Your task to perform on an android device: Search for apple airpods pro on ebay.com, select the first entry, add it to the cart, then select checkout. Image 0: 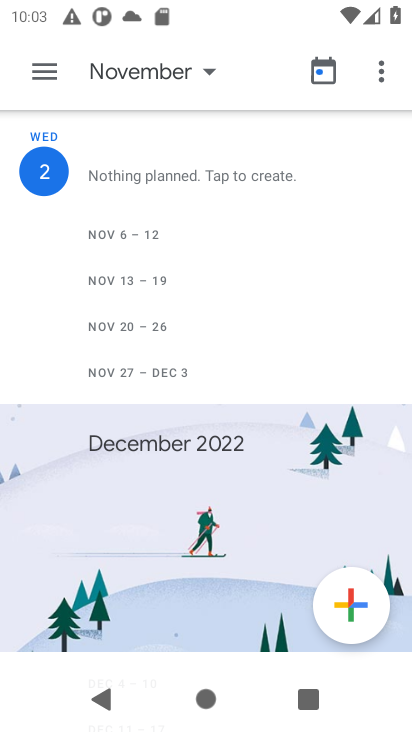
Step 0: press home button
Your task to perform on an android device: Search for apple airpods pro on ebay.com, select the first entry, add it to the cart, then select checkout. Image 1: 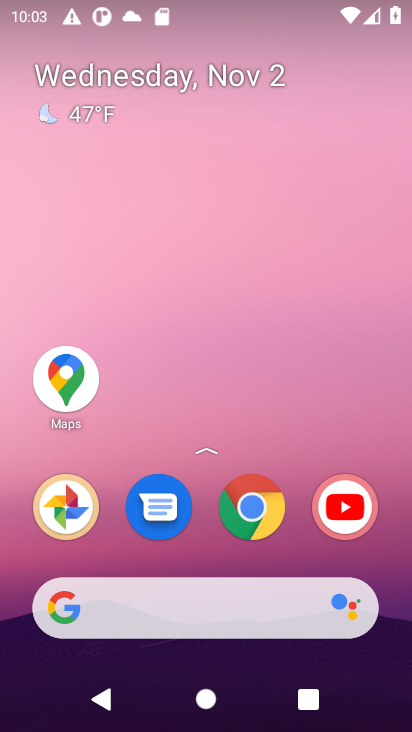
Step 1: click (143, 606)
Your task to perform on an android device: Search for apple airpods pro on ebay.com, select the first entry, add it to the cart, then select checkout. Image 2: 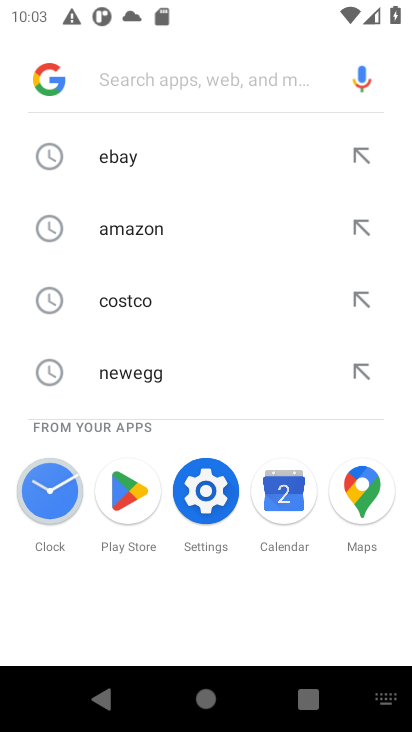
Step 2: click (246, 156)
Your task to perform on an android device: Search for apple airpods pro on ebay.com, select the first entry, add it to the cart, then select checkout. Image 3: 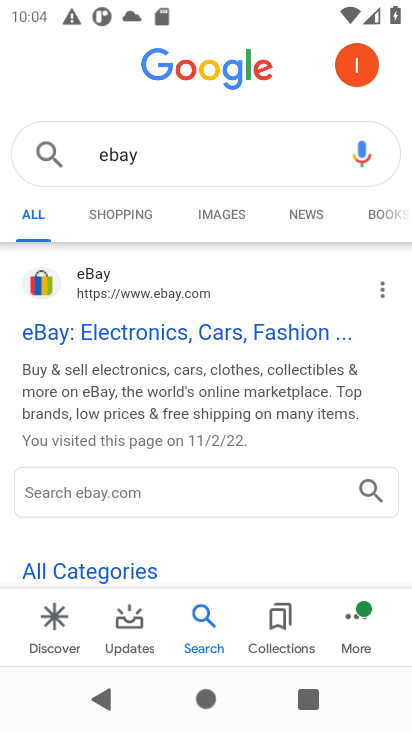
Step 3: click (114, 327)
Your task to perform on an android device: Search for apple airpods pro on ebay.com, select the first entry, add it to the cart, then select checkout. Image 4: 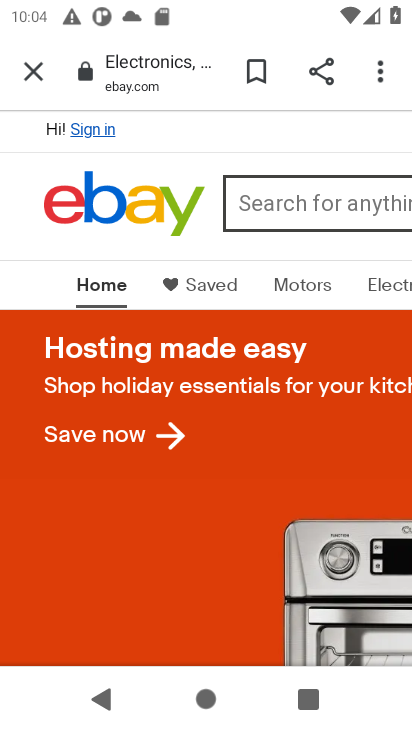
Step 4: click (314, 215)
Your task to perform on an android device: Search for apple airpods pro on ebay.com, select the first entry, add it to the cart, then select checkout. Image 5: 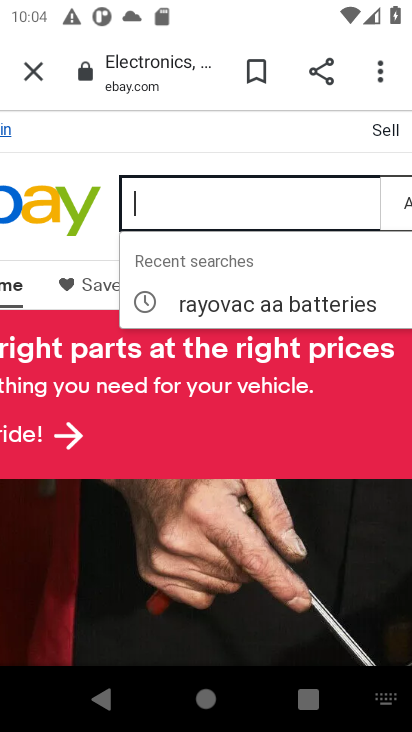
Step 5: type "apple "
Your task to perform on an android device: Search for apple airpods pro on ebay.com, select the first entry, add it to the cart, then select checkout. Image 6: 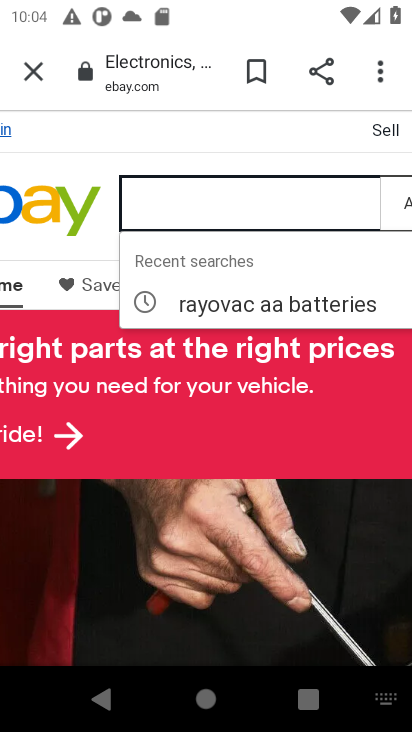
Step 6: click (270, 304)
Your task to perform on an android device: Search for apple airpods pro on ebay.com, select the first entry, add it to the cart, then select checkout. Image 7: 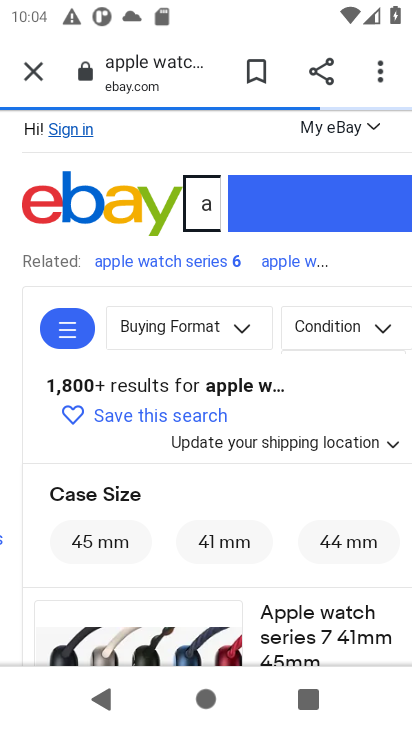
Step 7: drag from (237, 635) to (186, 290)
Your task to perform on an android device: Search for apple airpods pro on ebay.com, select the first entry, add it to the cart, then select checkout. Image 8: 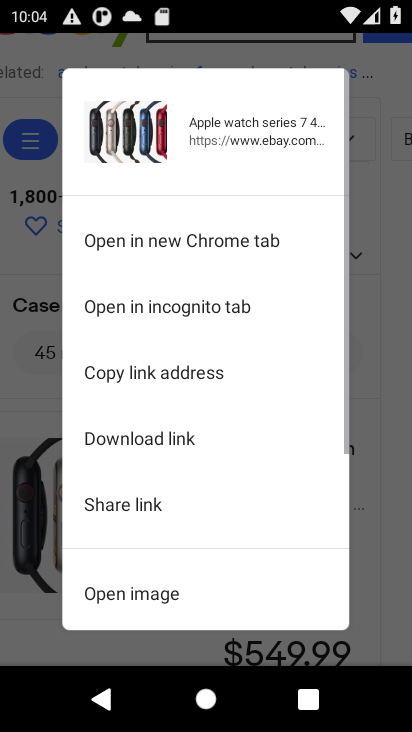
Step 8: click (262, 630)
Your task to perform on an android device: Search for apple airpods pro on ebay.com, select the first entry, add it to the cart, then select checkout. Image 9: 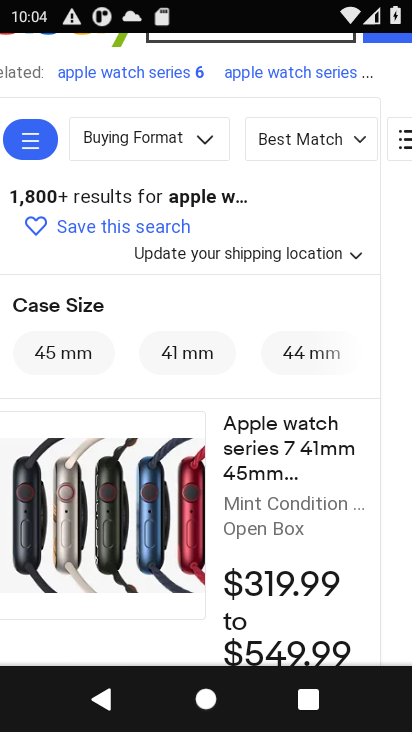
Step 9: task complete